Your task to perform on an android device: set the timer Image 0: 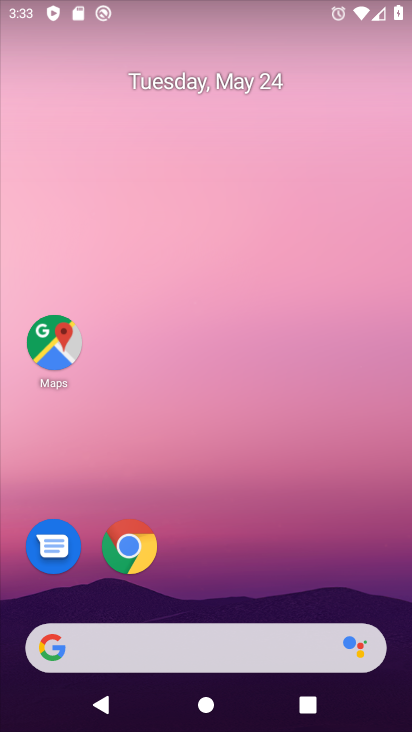
Step 0: drag from (238, 664) to (241, 258)
Your task to perform on an android device: set the timer Image 1: 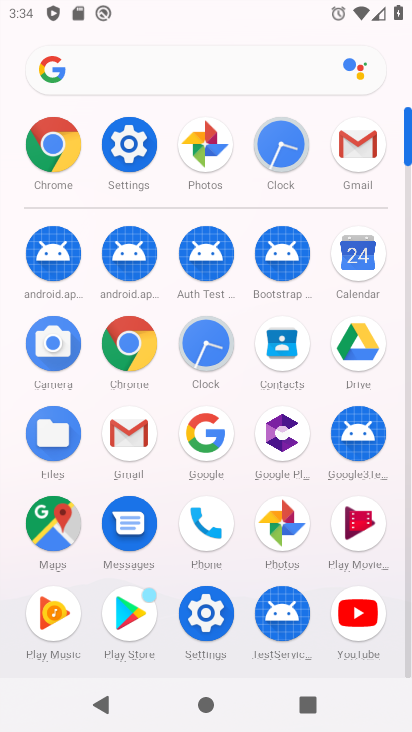
Step 1: click (272, 146)
Your task to perform on an android device: set the timer Image 2: 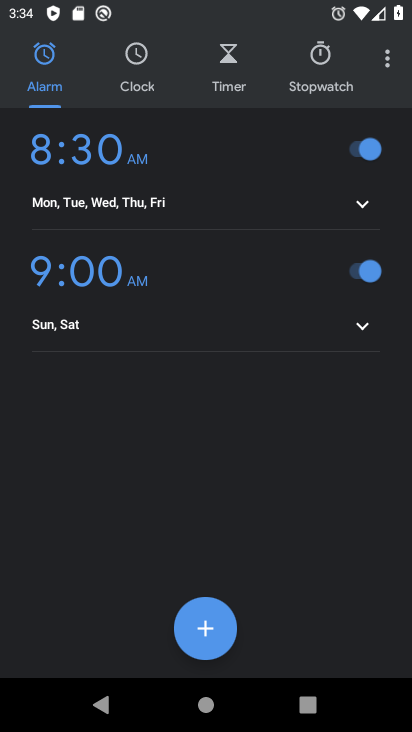
Step 2: click (234, 82)
Your task to perform on an android device: set the timer Image 3: 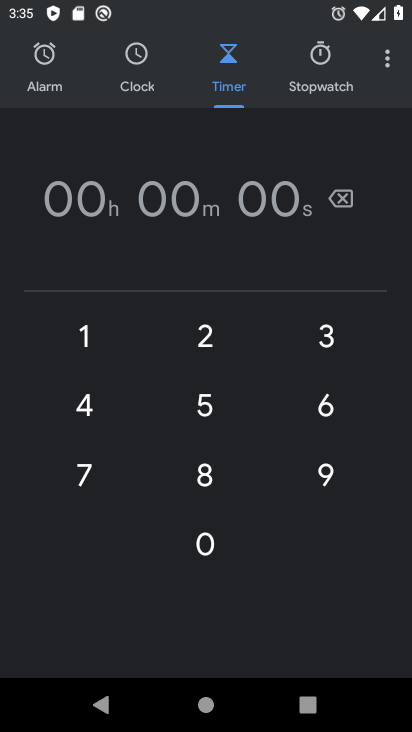
Step 3: click (200, 481)
Your task to perform on an android device: set the timer Image 4: 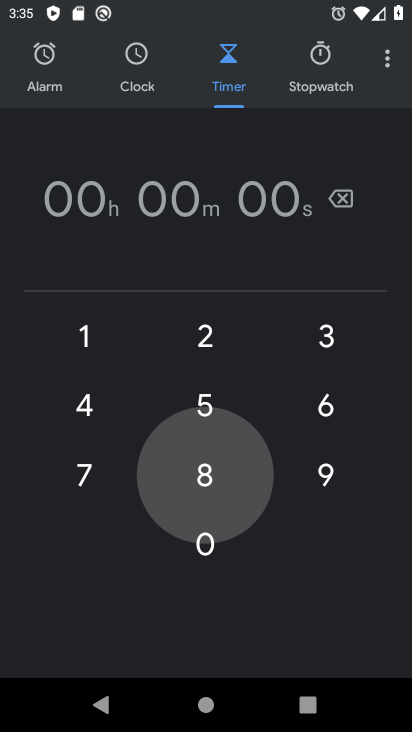
Step 4: click (200, 481)
Your task to perform on an android device: set the timer Image 5: 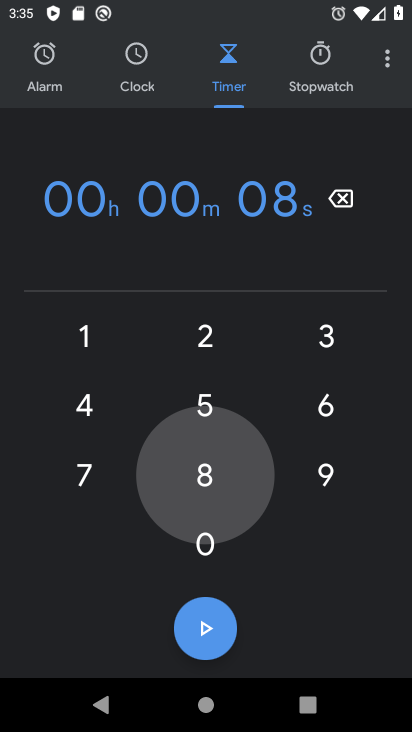
Step 5: click (200, 481)
Your task to perform on an android device: set the timer Image 6: 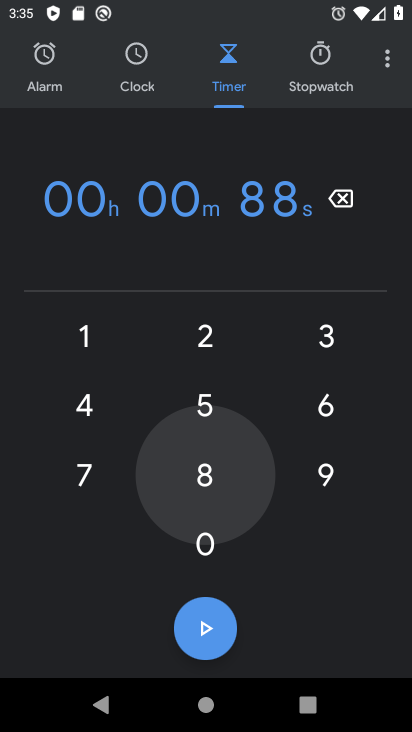
Step 6: click (202, 481)
Your task to perform on an android device: set the timer Image 7: 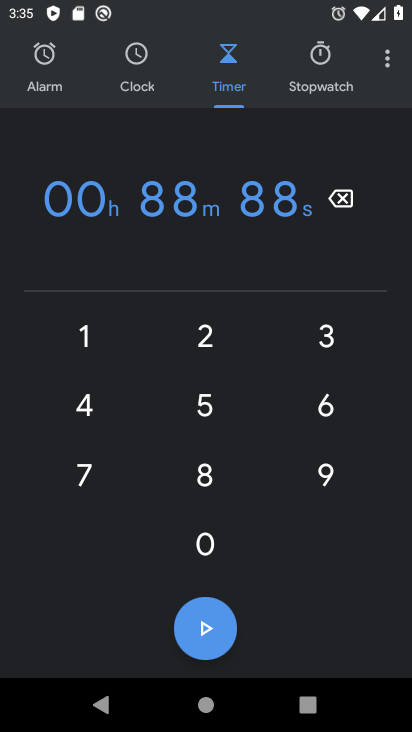
Step 7: click (212, 625)
Your task to perform on an android device: set the timer Image 8: 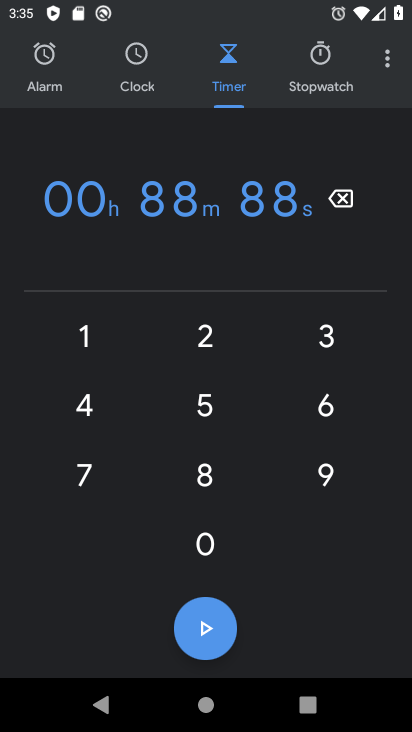
Step 8: click (212, 620)
Your task to perform on an android device: set the timer Image 9: 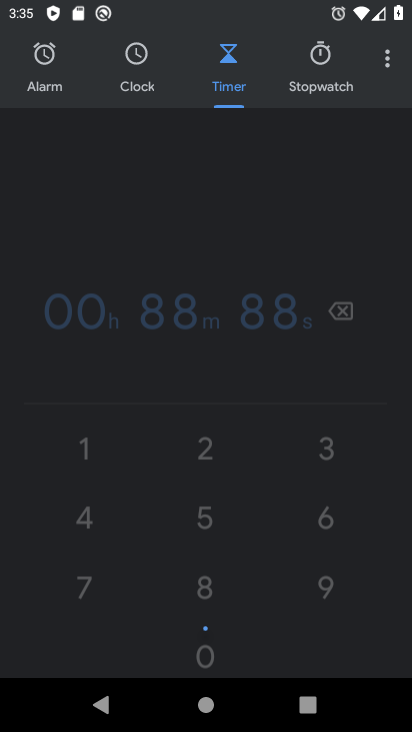
Step 9: click (212, 620)
Your task to perform on an android device: set the timer Image 10: 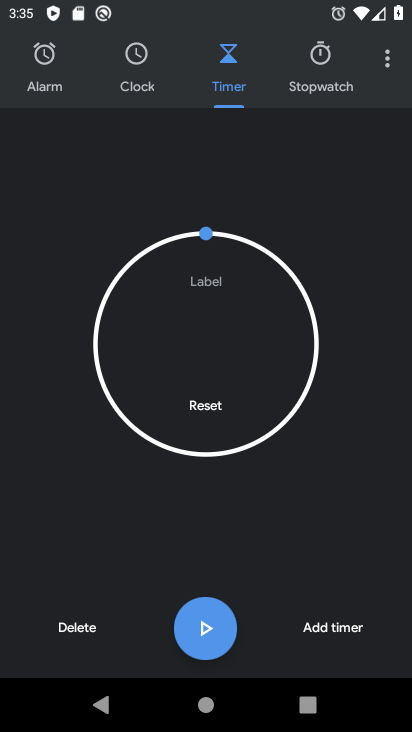
Step 10: click (213, 619)
Your task to perform on an android device: set the timer Image 11: 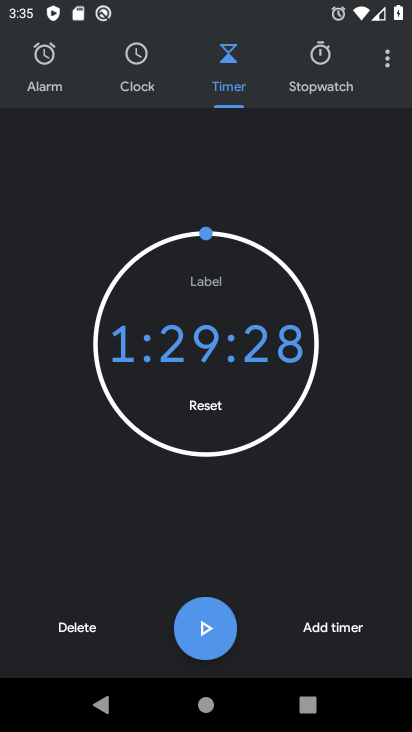
Step 11: click (204, 616)
Your task to perform on an android device: set the timer Image 12: 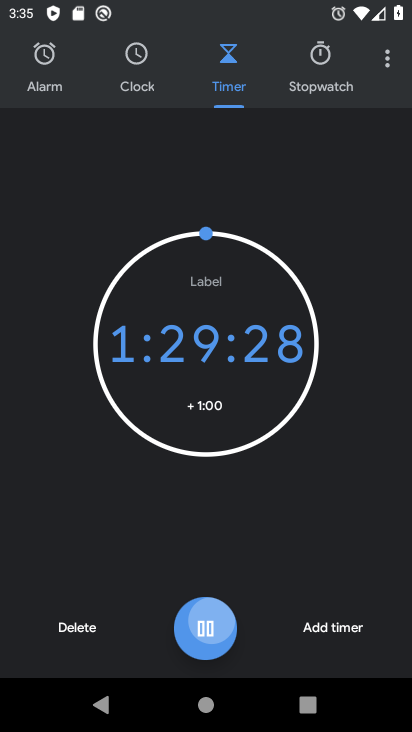
Step 12: click (203, 614)
Your task to perform on an android device: set the timer Image 13: 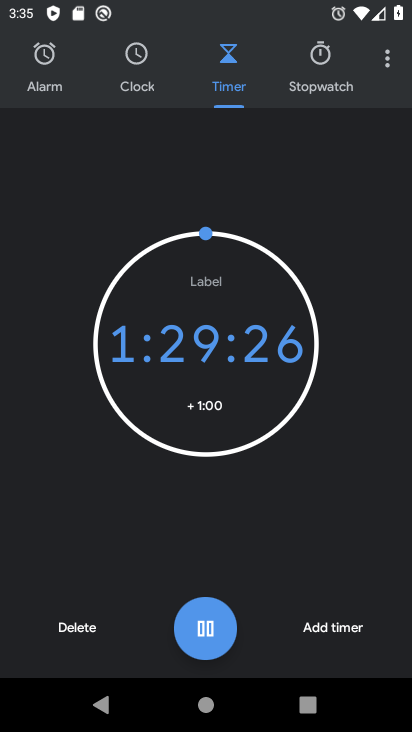
Step 13: click (203, 627)
Your task to perform on an android device: set the timer Image 14: 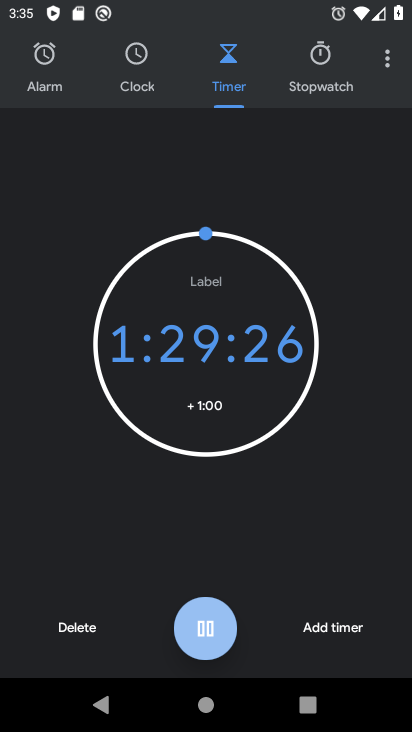
Step 14: click (212, 624)
Your task to perform on an android device: set the timer Image 15: 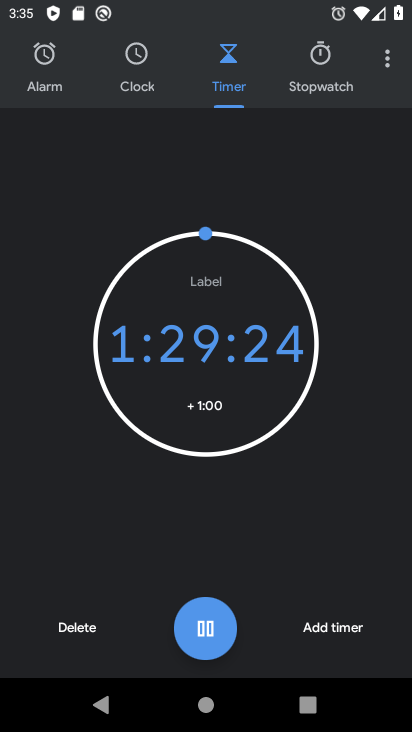
Step 15: click (207, 624)
Your task to perform on an android device: set the timer Image 16: 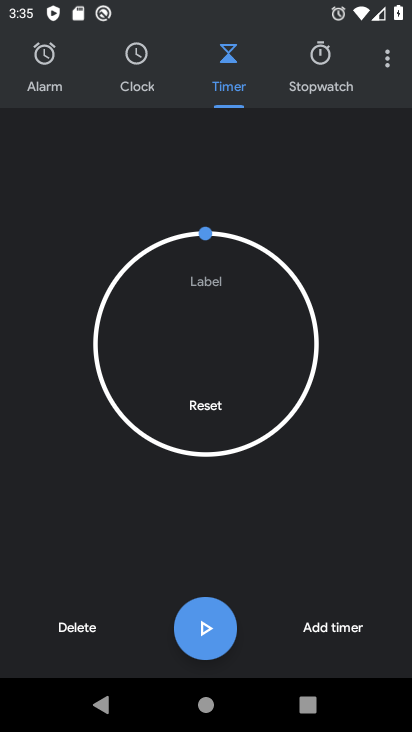
Step 16: task complete